Your task to perform on an android device: Open my contact list Image 0: 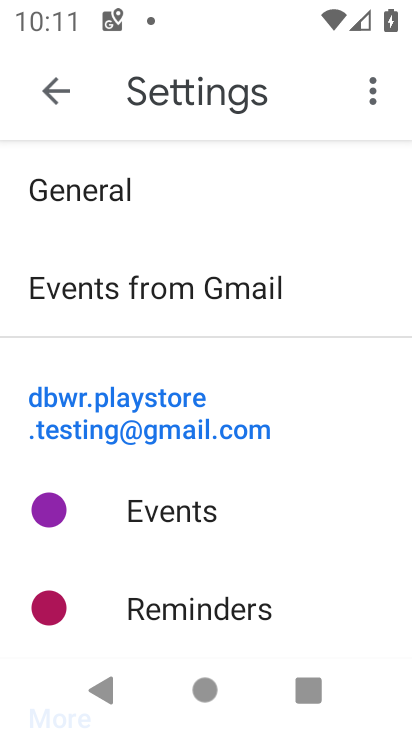
Step 0: press home button
Your task to perform on an android device: Open my contact list Image 1: 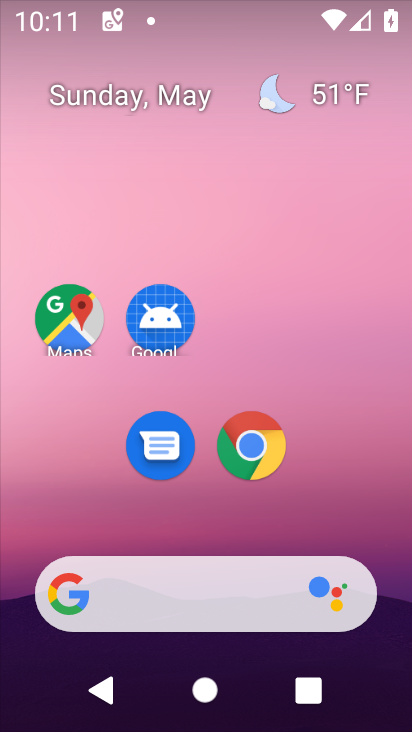
Step 1: drag from (285, 526) to (226, 122)
Your task to perform on an android device: Open my contact list Image 2: 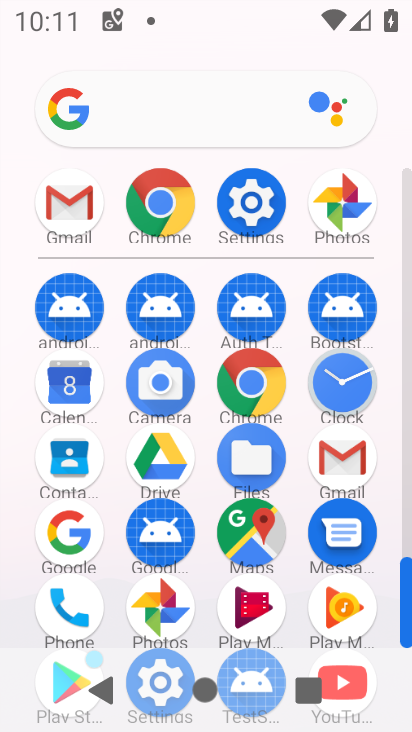
Step 2: click (59, 461)
Your task to perform on an android device: Open my contact list Image 3: 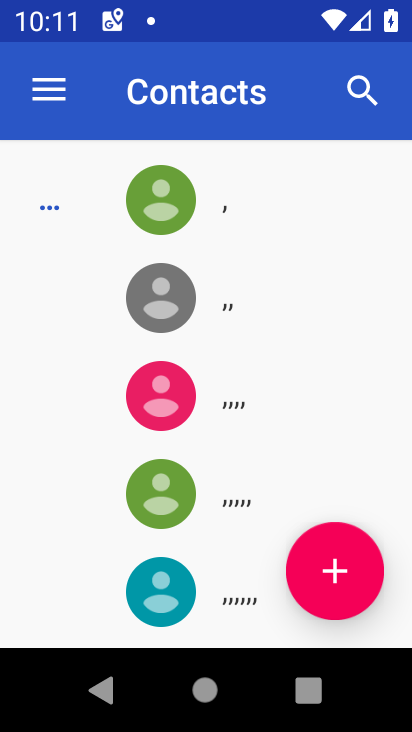
Step 3: click (345, 565)
Your task to perform on an android device: Open my contact list Image 4: 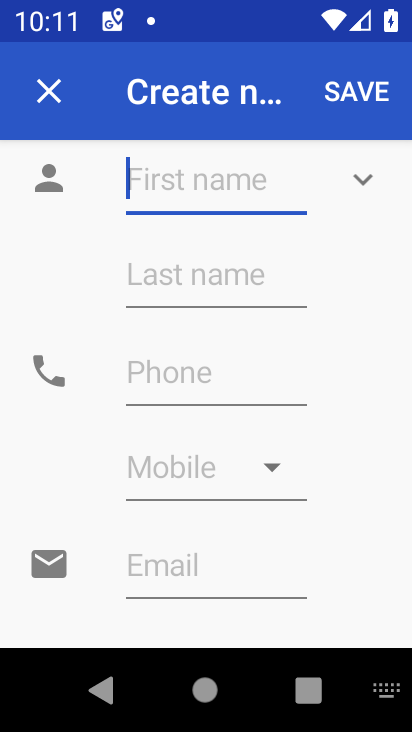
Step 4: type "zxcvbnm"
Your task to perform on an android device: Open my contact list Image 5: 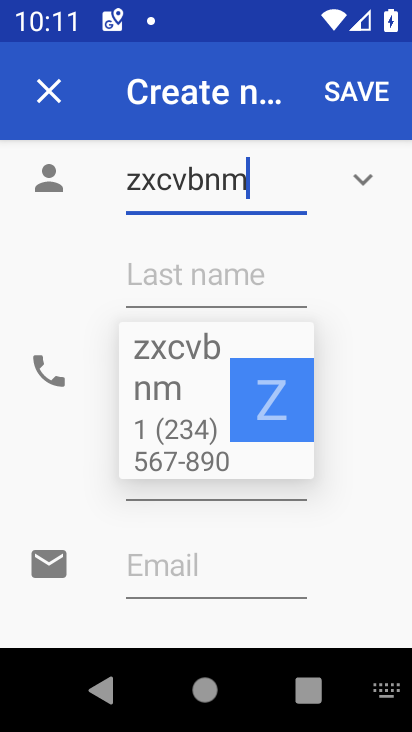
Step 5: click (175, 368)
Your task to perform on an android device: Open my contact list Image 6: 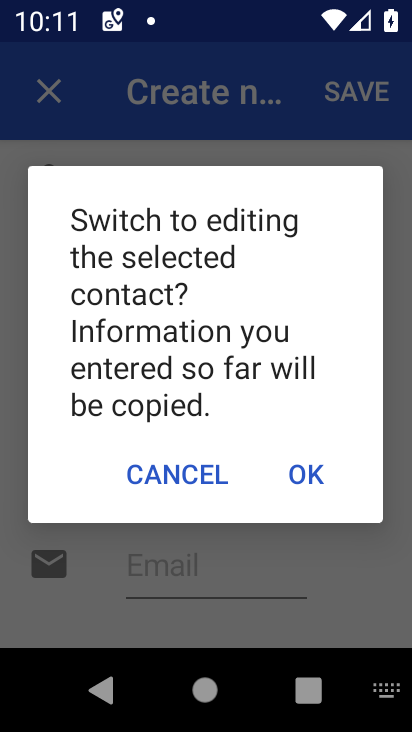
Step 6: click (201, 470)
Your task to perform on an android device: Open my contact list Image 7: 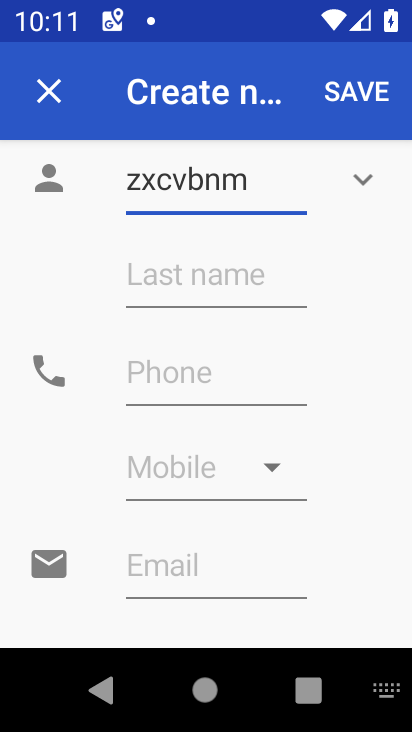
Step 7: click (179, 366)
Your task to perform on an android device: Open my contact list Image 8: 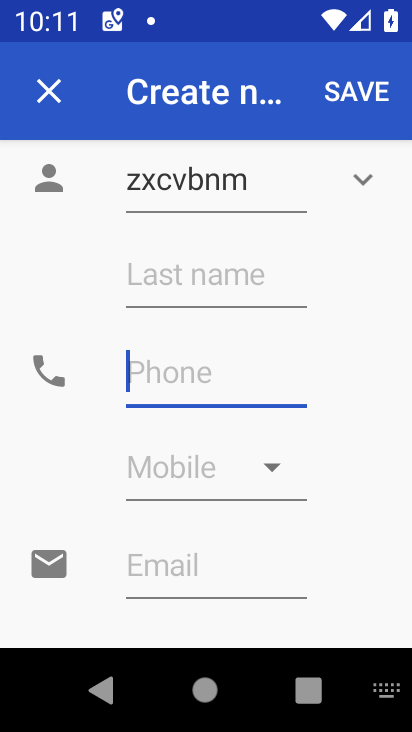
Step 8: type "998766543456"
Your task to perform on an android device: Open my contact list Image 9: 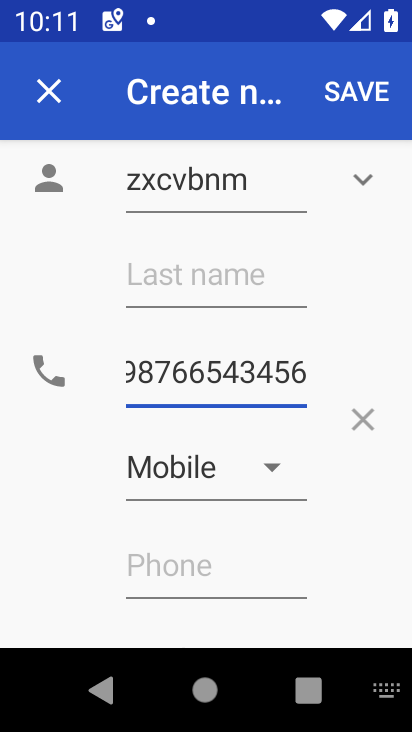
Step 9: click (345, 92)
Your task to perform on an android device: Open my contact list Image 10: 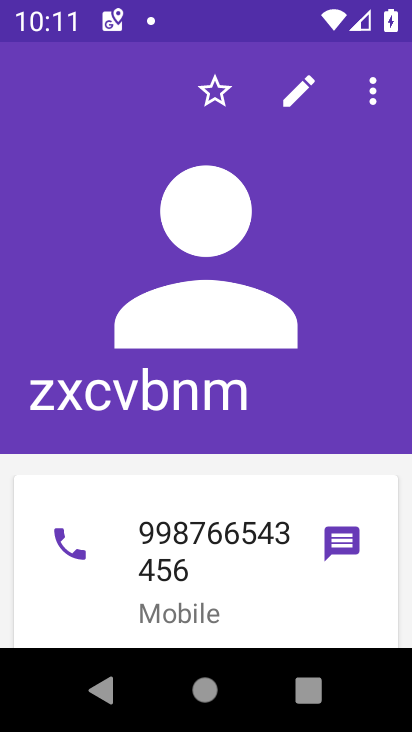
Step 10: task complete